Your task to perform on an android device: Go to Android settings Image 0: 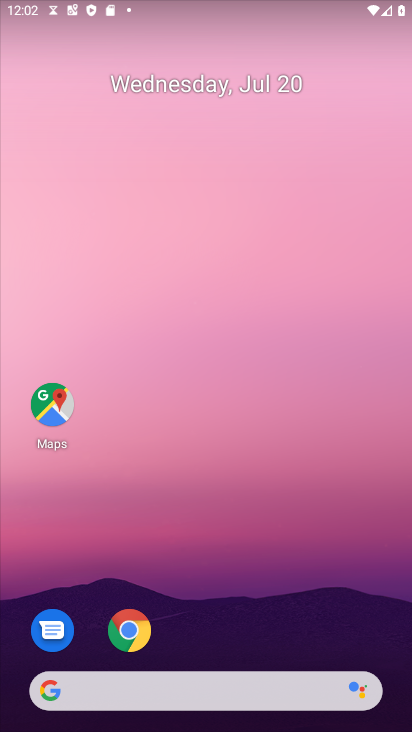
Step 0: drag from (238, 704) to (206, 231)
Your task to perform on an android device: Go to Android settings Image 1: 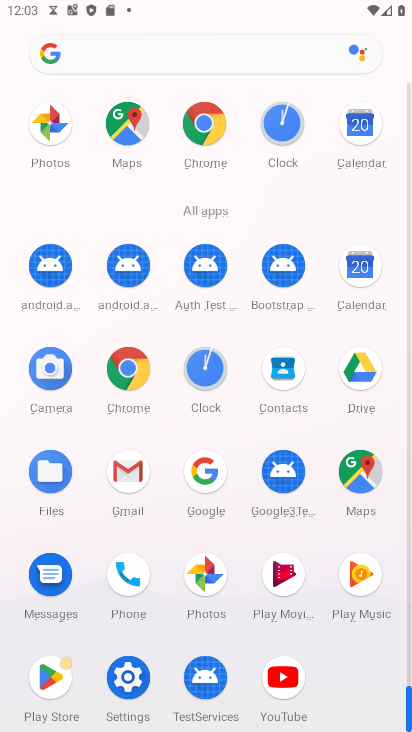
Step 1: click (128, 673)
Your task to perform on an android device: Go to Android settings Image 2: 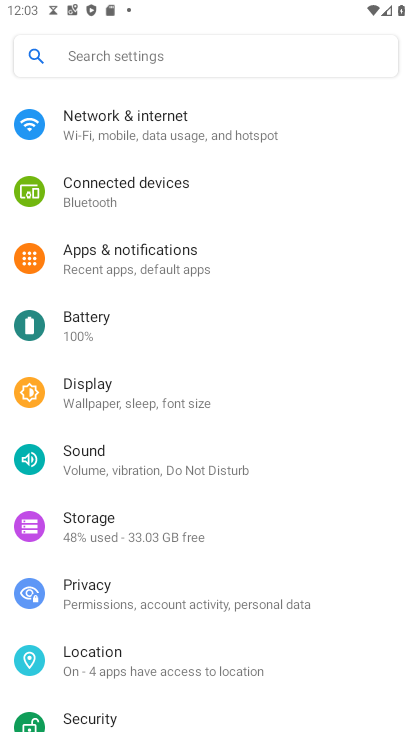
Step 2: click (131, 680)
Your task to perform on an android device: Go to Android settings Image 3: 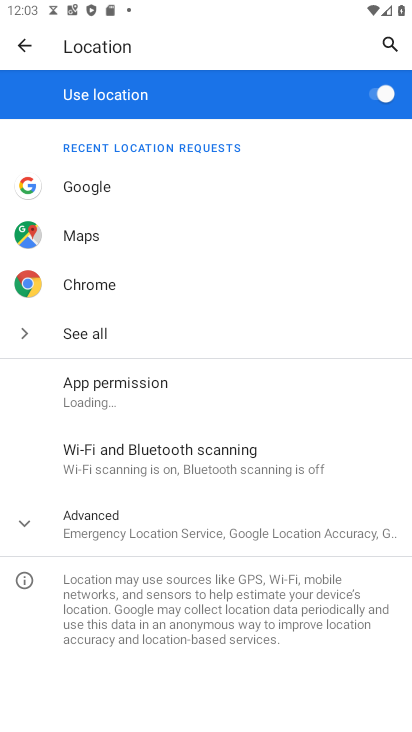
Step 3: click (15, 45)
Your task to perform on an android device: Go to Android settings Image 4: 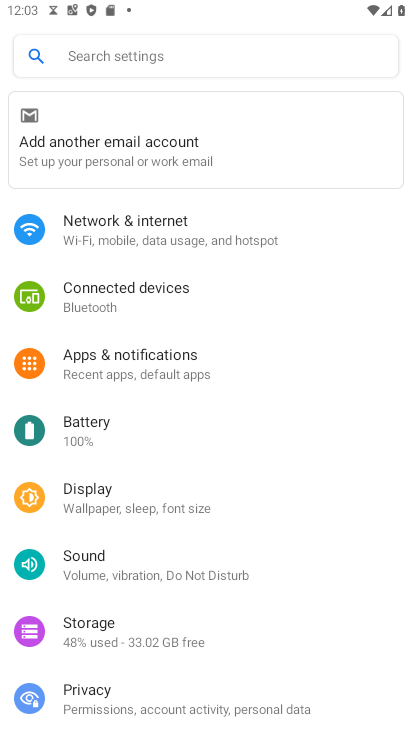
Step 4: drag from (155, 398) to (165, 316)
Your task to perform on an android device: Go to Android settings Image 5: 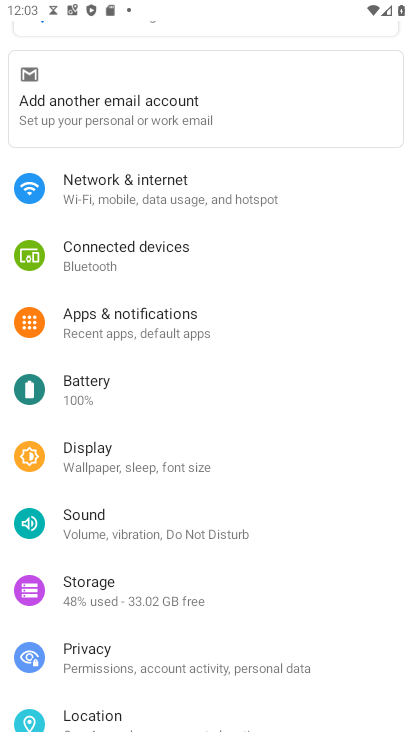
Step 5: drag from (179, 517) to (165, 289)
Your task to perform on an android device: Go to Android settings Image 6: 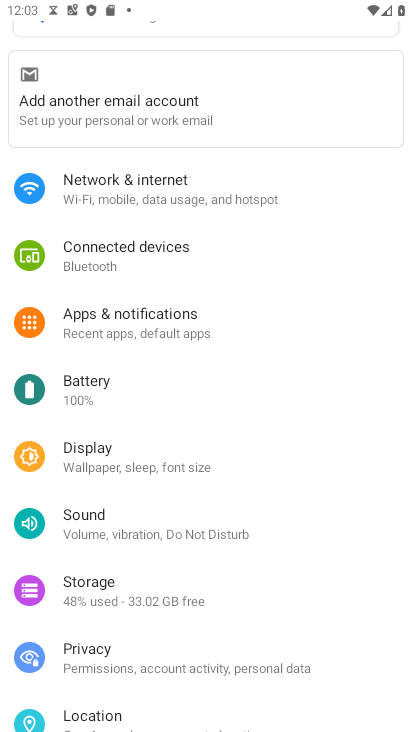
Step 6: drag from (123, 394) to (132, 337)
Your task to perform on an android device: Go to Android settings Image 7: 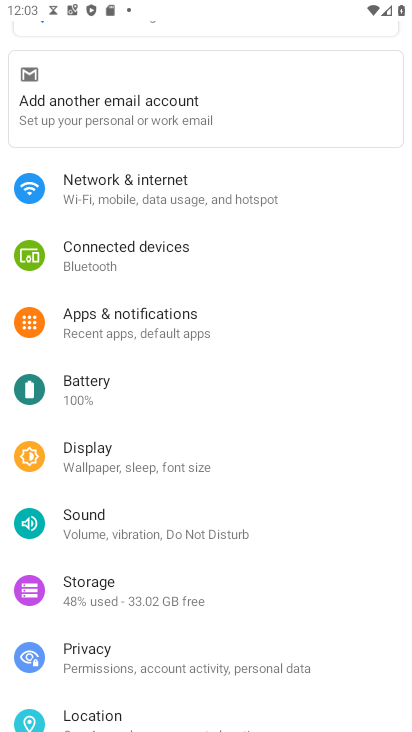
Step 7: drag from (138, 606) to (163, 294)
Your task to perform on an android device: Go to Android settings Image 8: 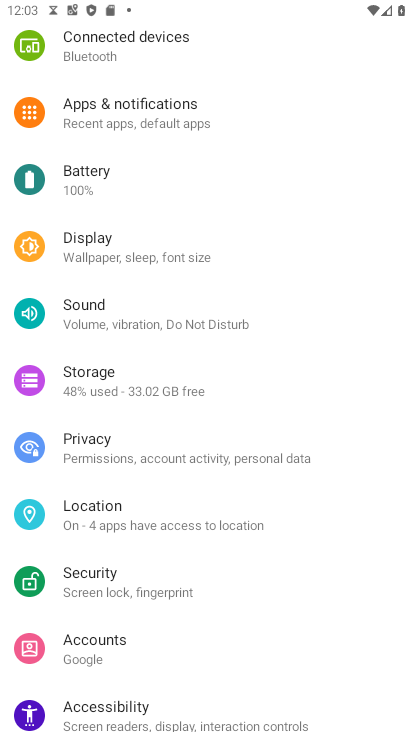
Step 8: drag from (154, 447) to (145, 197)
Your task to perform on an android device: Go to Android settings Image 9: 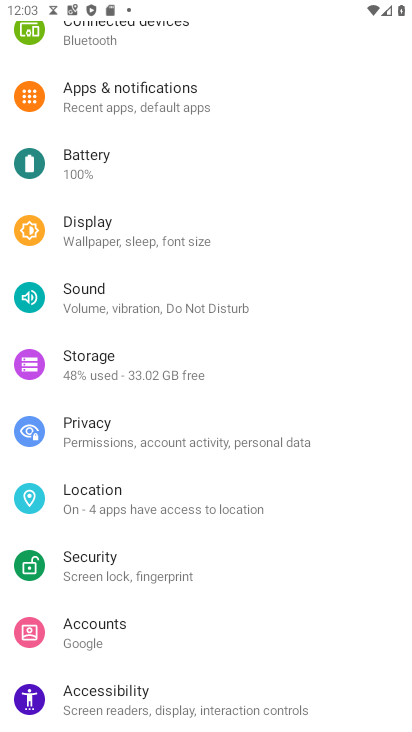
Step 9: drag from (99, 476) to (96, 115)
Your task to perform on an android device: Go to Android settings Image 10: 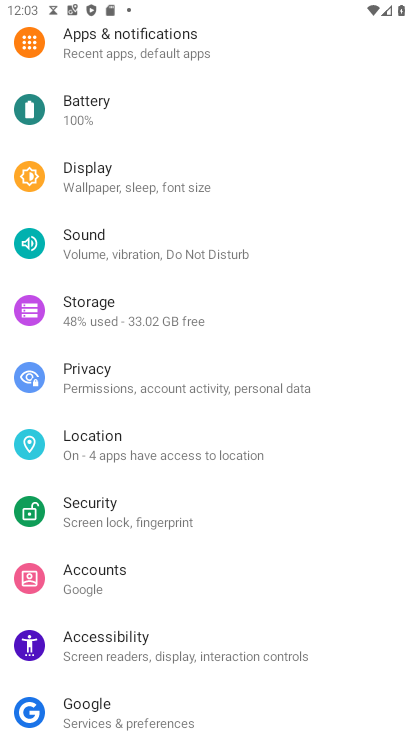
Step 10: click (181, 216)
Your task to perform on an android device: Go to Android settings Image 11: 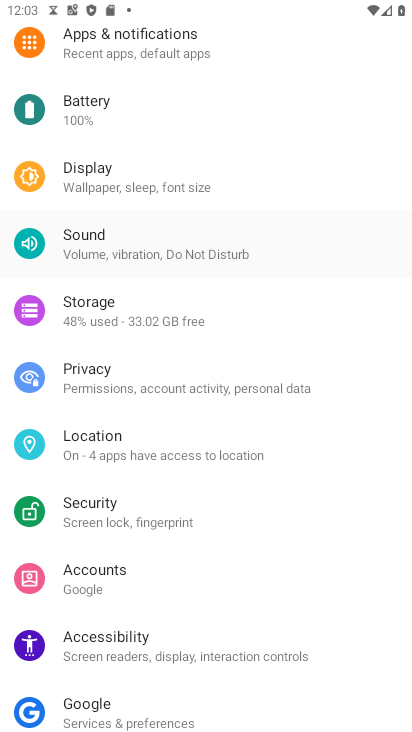
Step 11: click (78, 239)
Your task to perform on an android device: Go to Android settings Image 12: 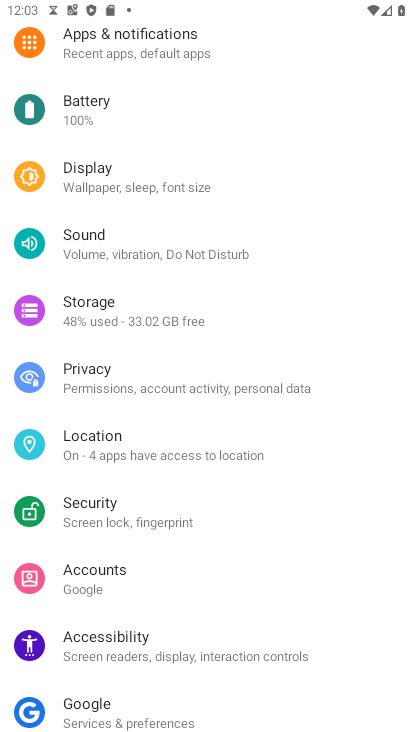
Step 12: drag from (63, 400) to (91, 216)
Your task to perform on an android device: Go to Android settings Image 13: 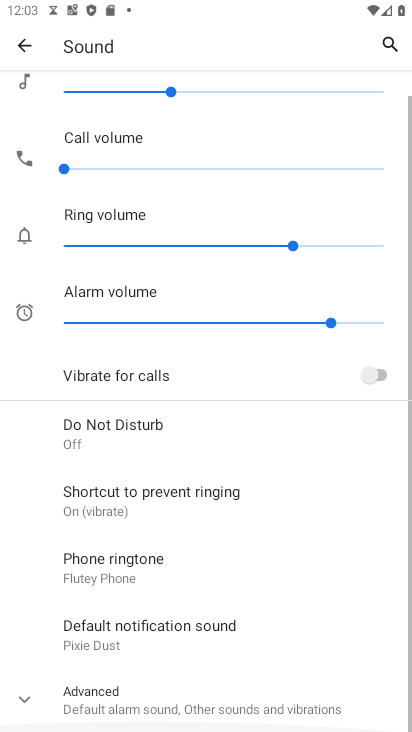
Step 13: drag from (153, 568) to (132, 291)
Your task to perform on an android device: Go to Android settings Image 14: 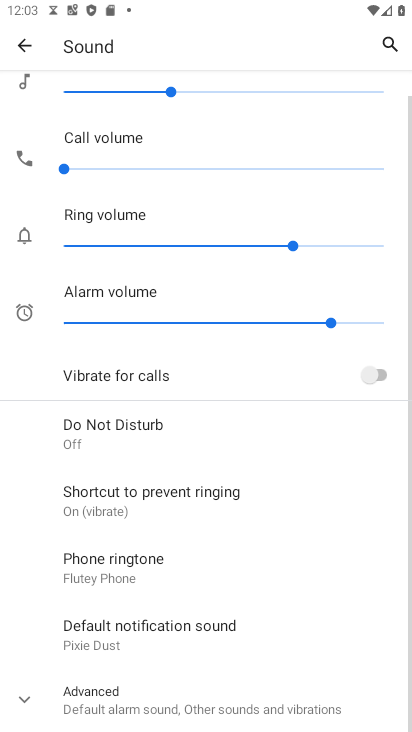
Step 14: click (14, 41)
Your task to perform on an android device: Go to Android settings Image 15: 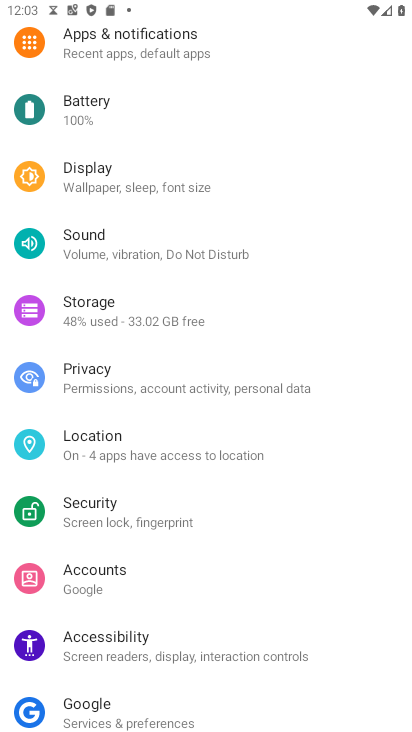
Step 15: drag from (83, 512) to (80, 164)
Your task to perform on an android device: Go to Android settings Image 16: 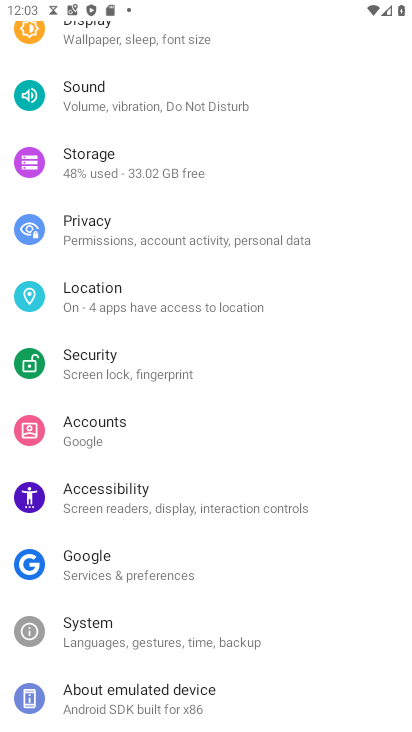
Step 16: drag from (126, 681) to (126, 166)
Your task to perform on an android device: Go to Android settings Image 17: 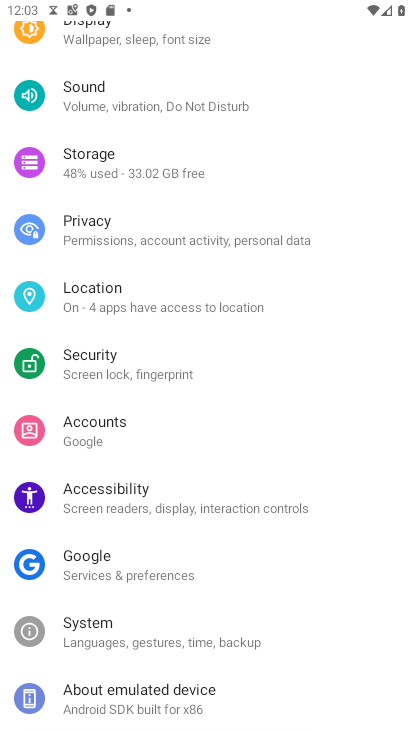
Step 17: click (138, 705)
Your task to perform on an android device: Go to Android settings Image 18: 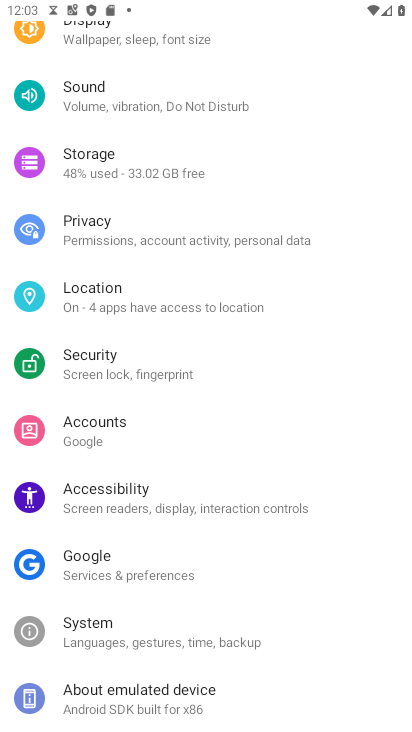
Step 18: click (132, 695)
Your task to perform on an android device: Go to Android settings Image 19: 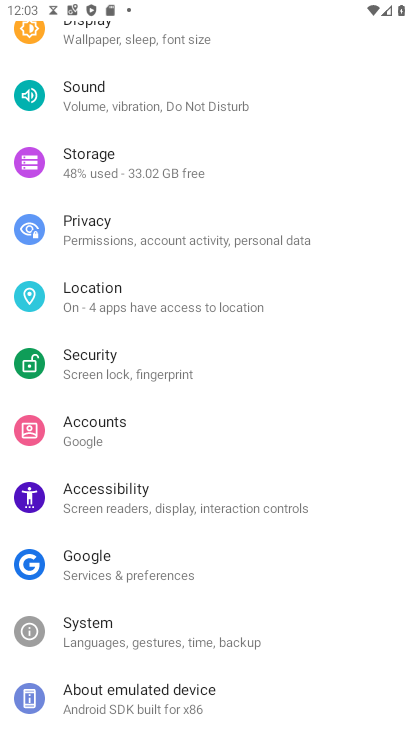
Step 19: click (132, 695)
Your task to perform on an android device: Go to Android settings Image 20: 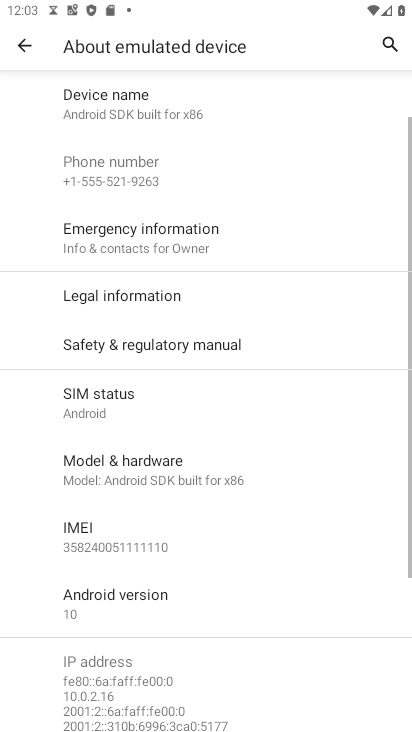
Step 20: task complete